Your task to perform on an android device: Open notification settings Image 0: 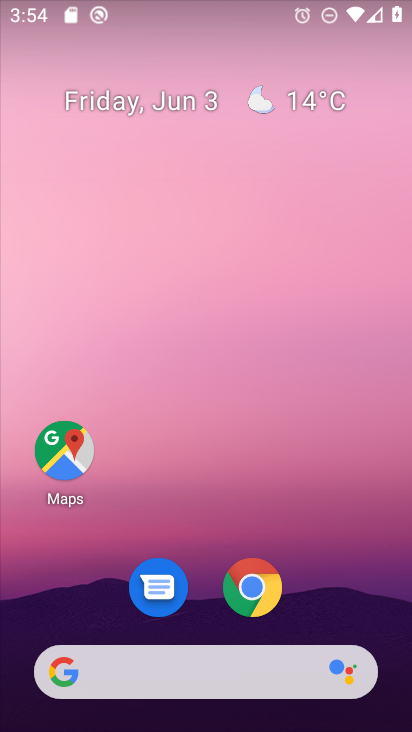
Step 0: drag from (245, 730) to (244, 74)
Your task to perform on an android device: Open notification settings Image 1: 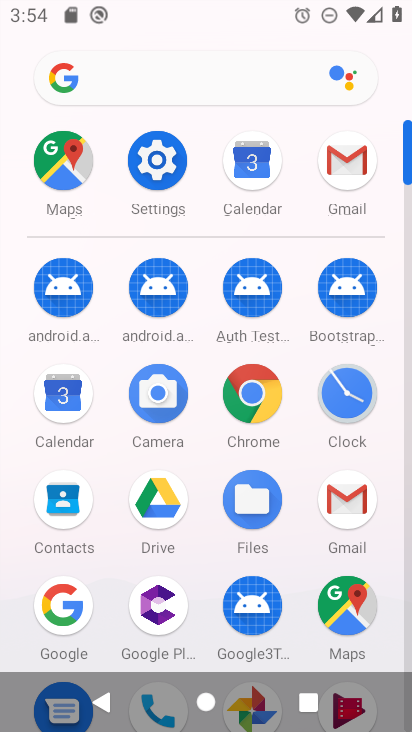
Step 1: click (152, 154)
Your task to perform on an android device: Open notification settings Image 2: 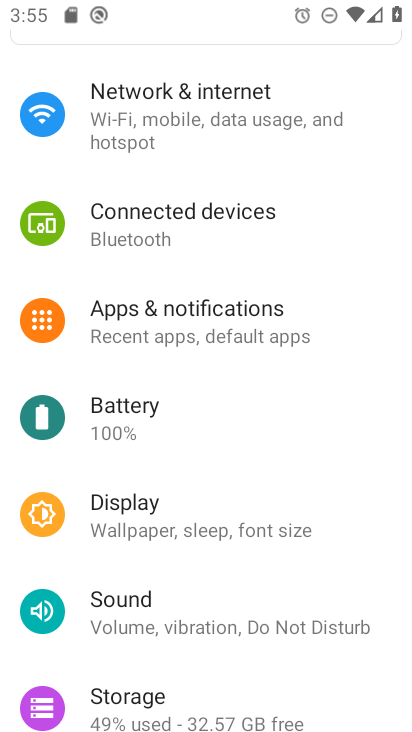
Step 2: click (195, 319)
Your task to perform on an android device: Open notification settings Image 3: 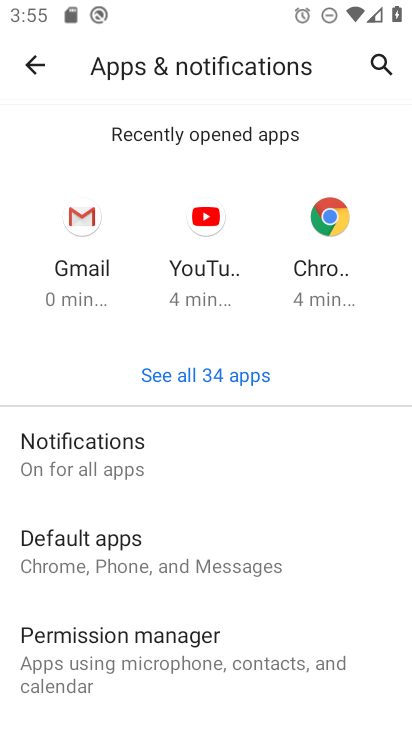
Step 3: click (75, 457)
Your task to perform on an android device: Open notification settings Image 4: 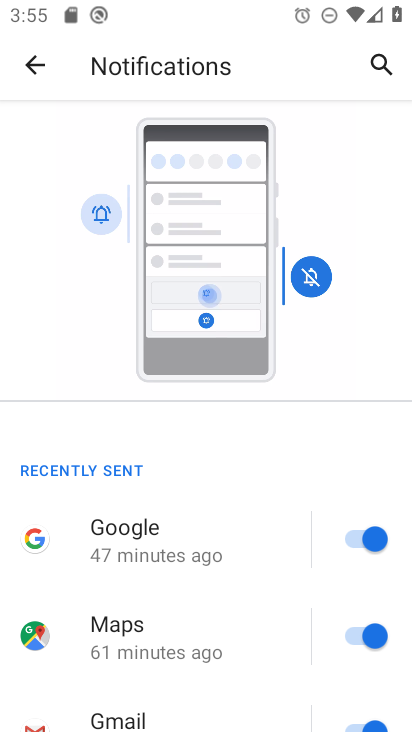
Step 4: task complete